Your task to perform on an android device: change timer sound Image 0: 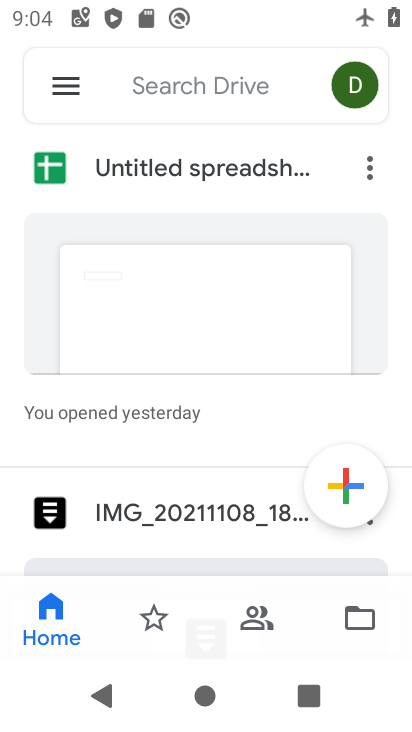
Step 0: press home button
Your task to perform on an android device: change timer sound Image 1: 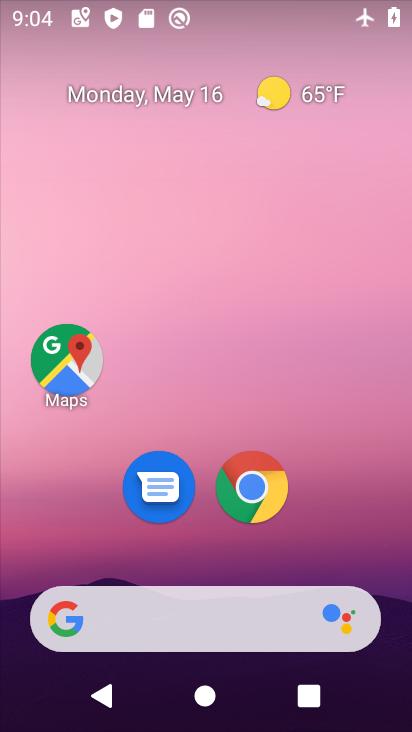
Step 1: drag from (361, 539) to (380, 100)
Your task to perform on an android device: change timer sound Image 2: 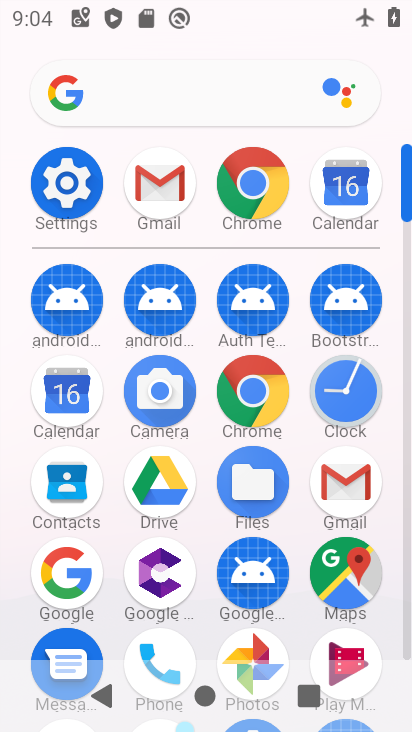
Step 2: click (363, 386)
Your task to perform on an android device: change timer sound Image 3: 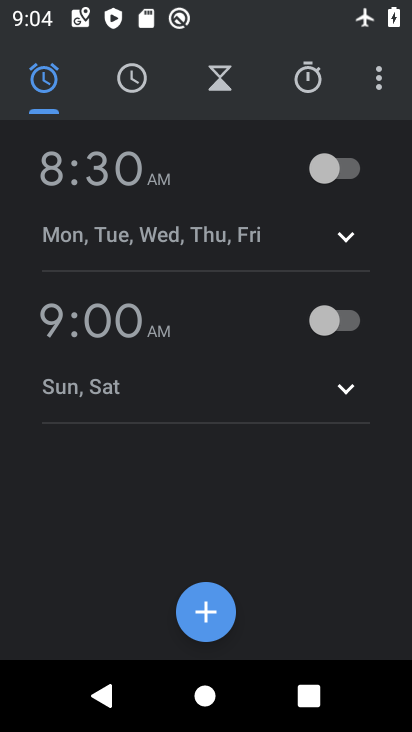
Step 3: click (382, 85)
Your task to perform on an android device: change timer sound Image 4: 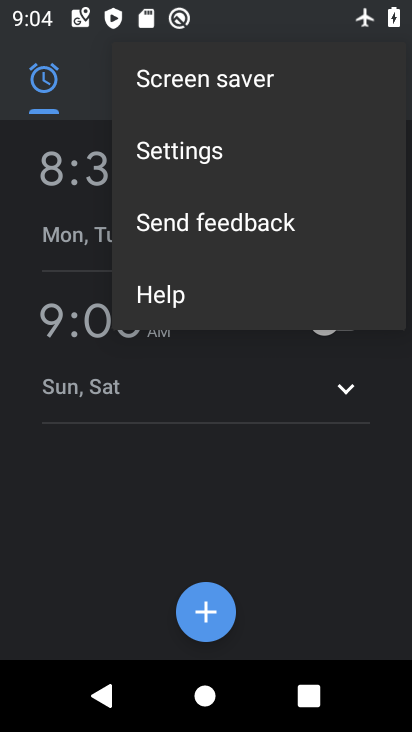
Step 4: click (215, 154)
Your task to perform on an android device: change timer sound Image 5: 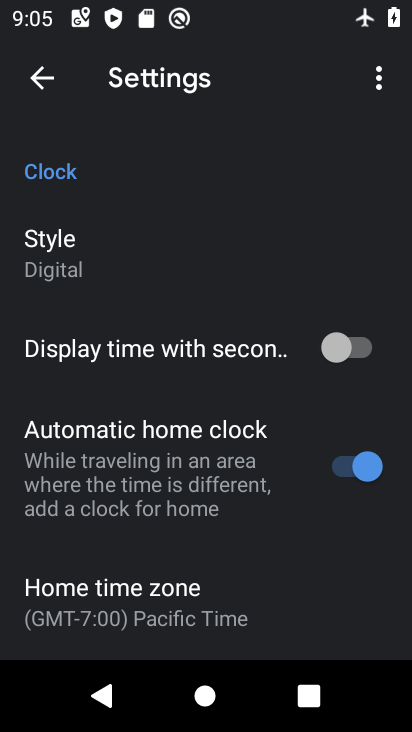
Step 5: drag from (288, 570) to (306, 290)
Your task to perform on an android device: change timer sound Image 6: 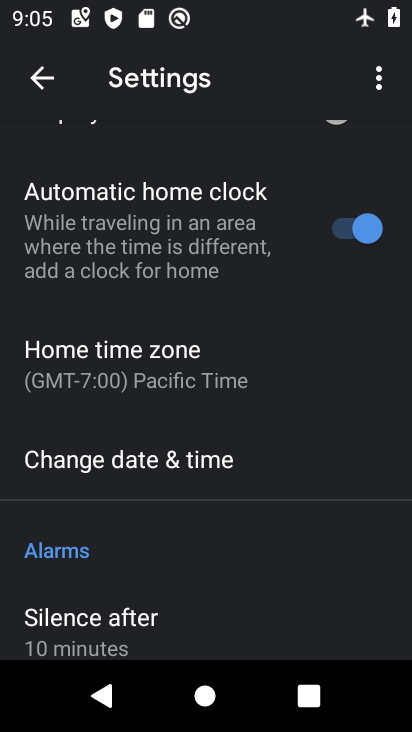
Step 6: drag from (299, 581) to (310, 331)
Your task to perform on an android device: change timer sound Image 7: 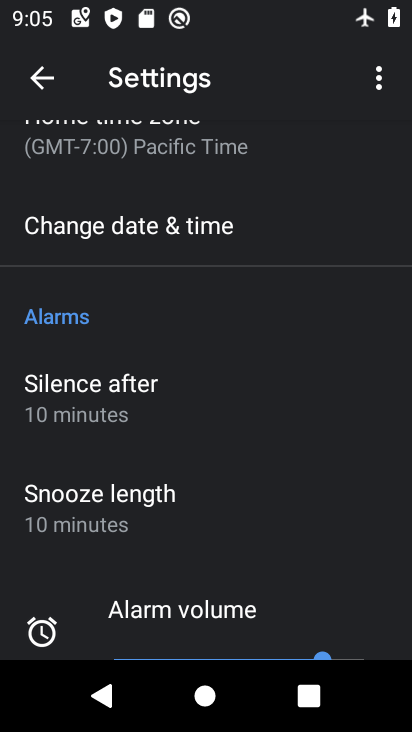
Step 7: drag from (296, 546) to (291, 334)
Your task to perform on an android device: change timer sound Image 8: 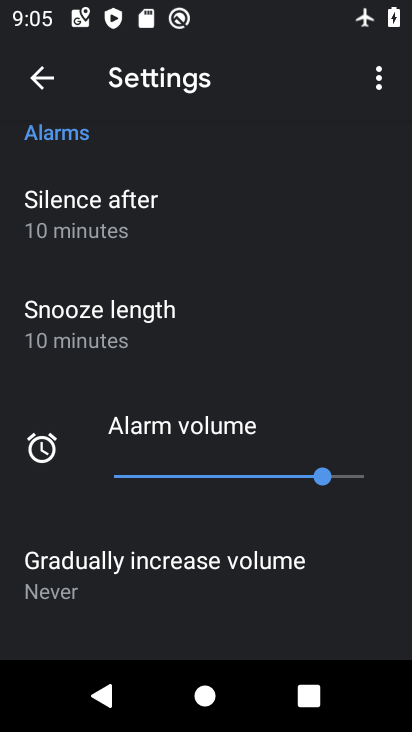
Step 8: drag from (272, 591) to (292, 367)
Your task to perform on an android device: change timer sound Image 9: 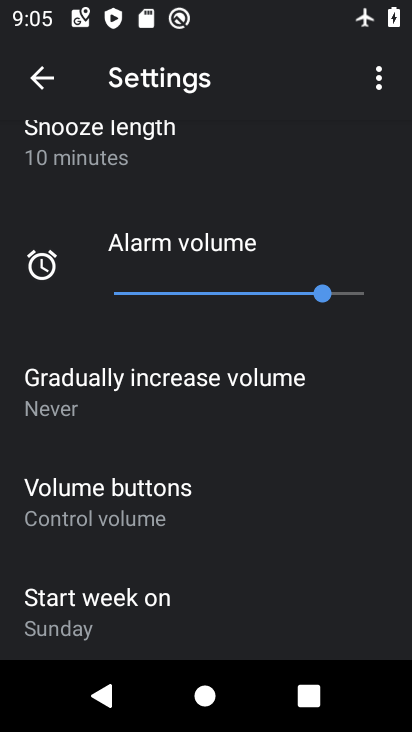
Step 9: drag from (266, 574) to (267, 395)
Your task to perform on an android device: change timer sound Image 10: 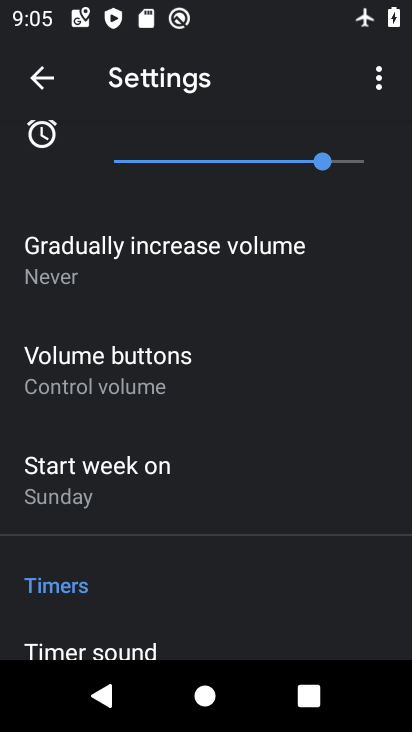
Step 10: drag from (242, 570) to (252, 374)
Your task to perform on an android device: change timer sound Image 11: 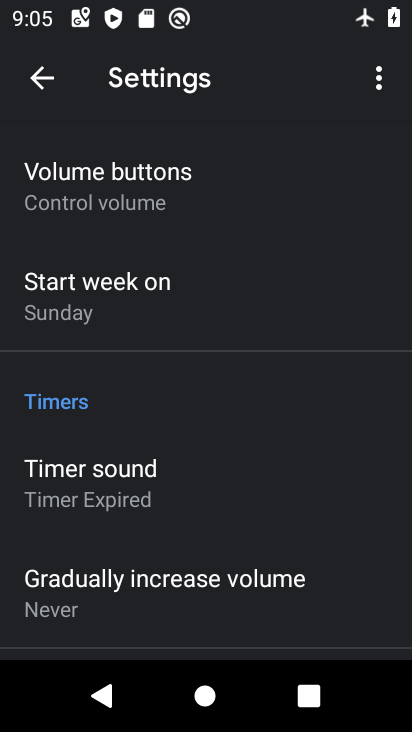
Step 11: drag from (257, 507) to (289, 190)
Your task to perform on an android device: change timer sound Image 12: 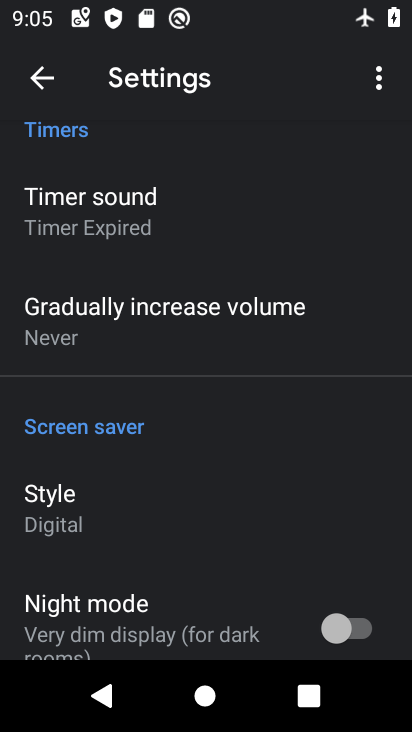
Step 12: click (84, 205)
Your task to perform on an android device: change timer sound Image 13: 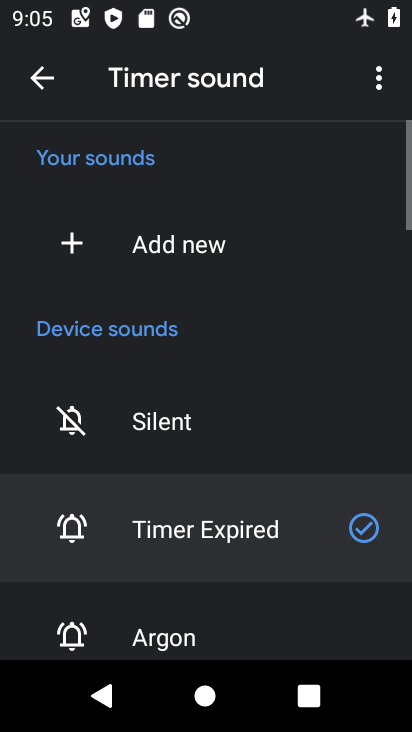
Step 13: click (171, 640)
Your task to perform on an android device: change timer sound Image 14: 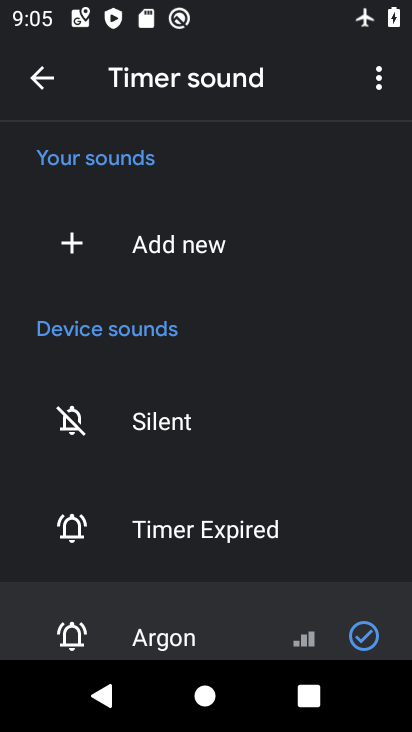
Step 14: task complete